Your task to perform on an android device: turn on the 12-hour format for clock Image 0: 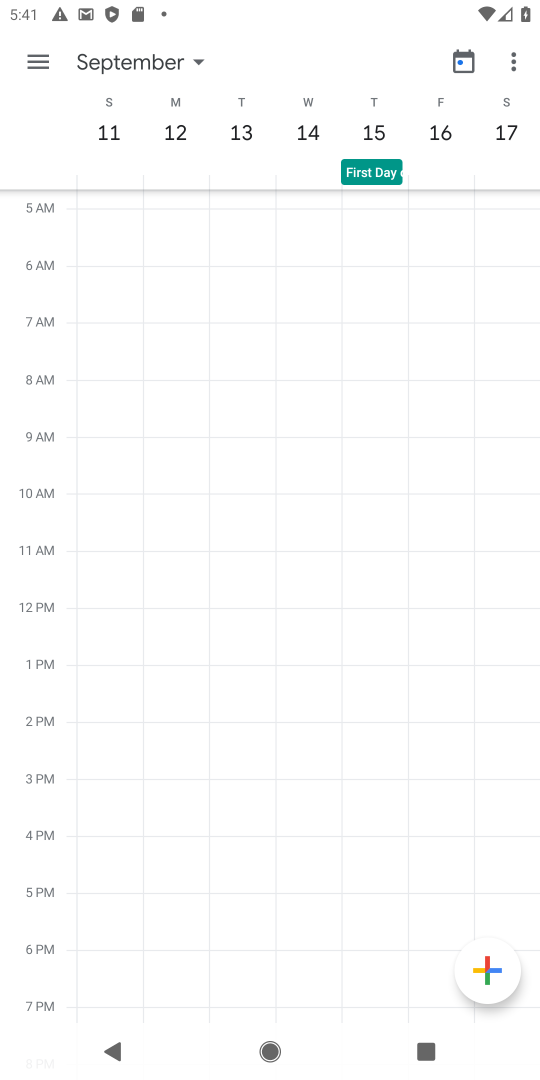
Step 0: press home button
Your task to perform on an android device: turn on the 12-hour format for clock Image 1: 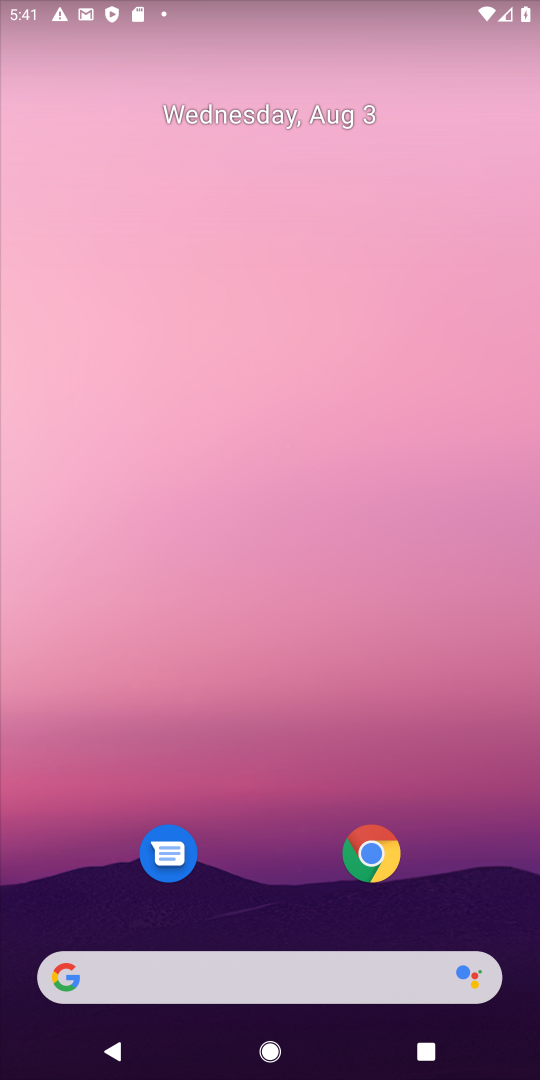
Step 1: drag from (483, 840) to (395, 80)
Your task to perform on an android device: turn on the 12-hour format for clock Image 2: 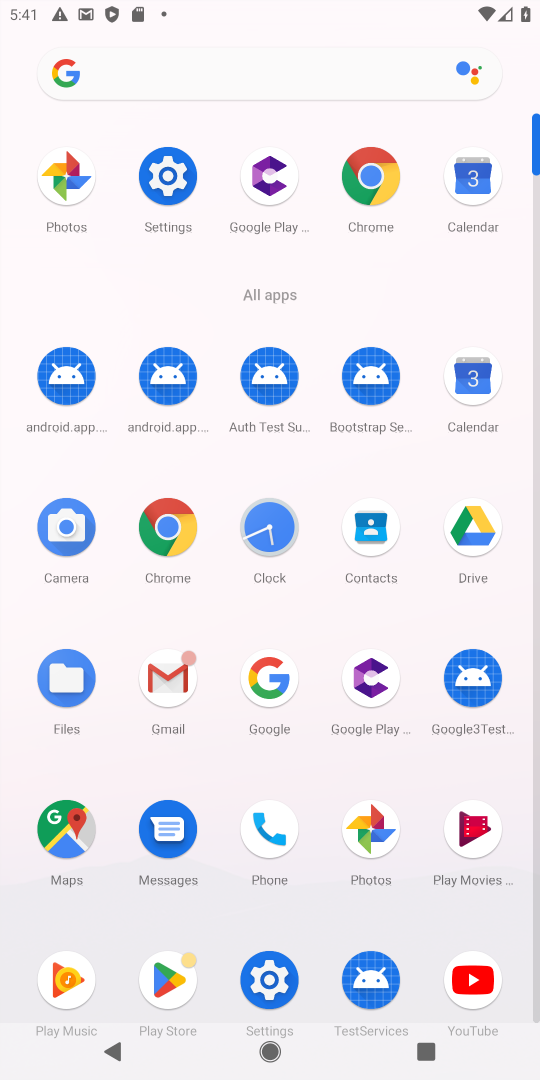
Step 2: click (280, 979)
Your task to perform on an android device: turn on the 12-hour format for clock Image 3: 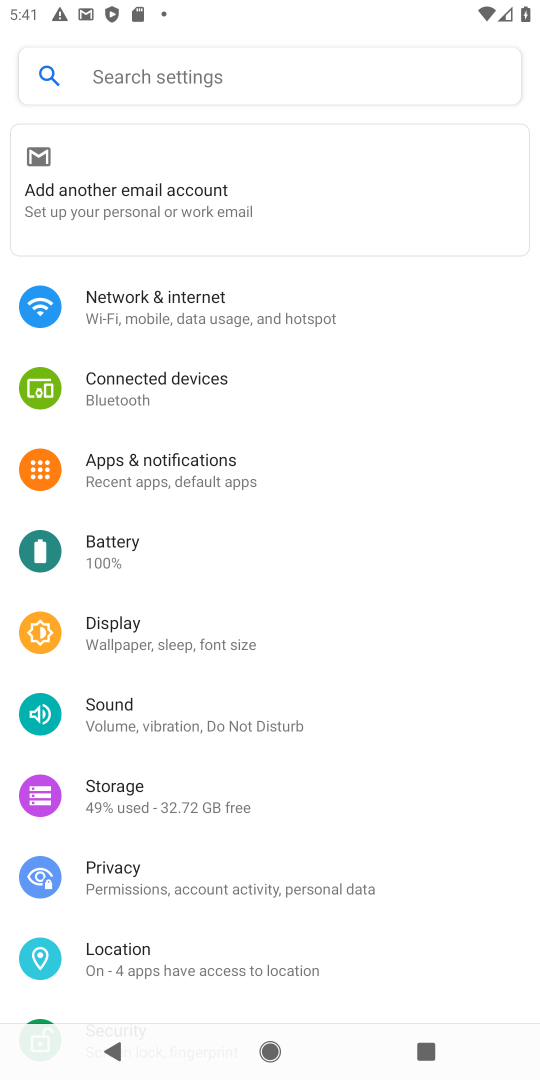
Step 3: drag from (338, 849) to (303, 245)
Your task to perform on an android device: turn on the 12-hour format for clock Image 4: 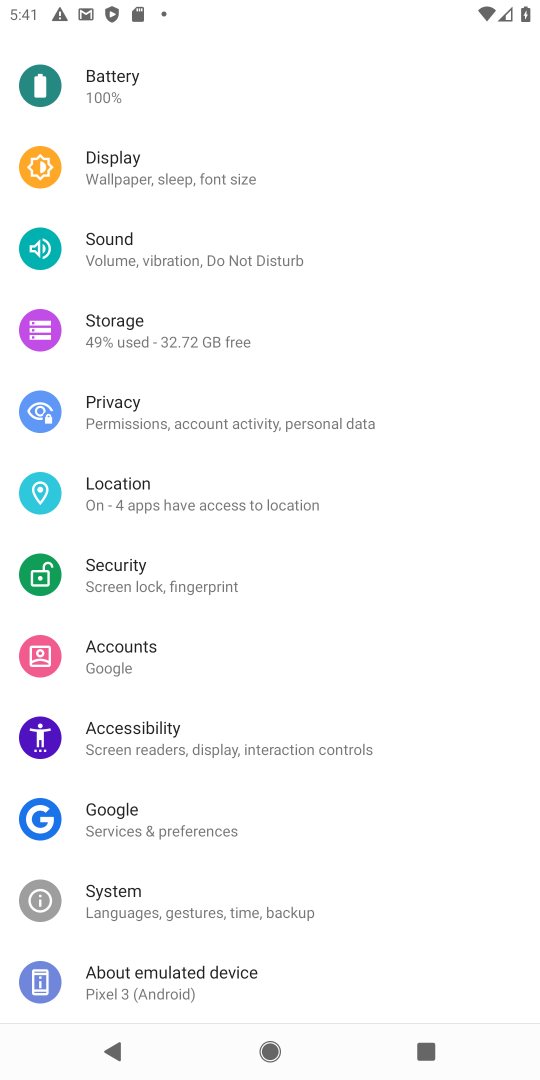
Step 4: click (178, 907)
Your task to perform on an android device: turn on the 12-hour format for clock Image 5: 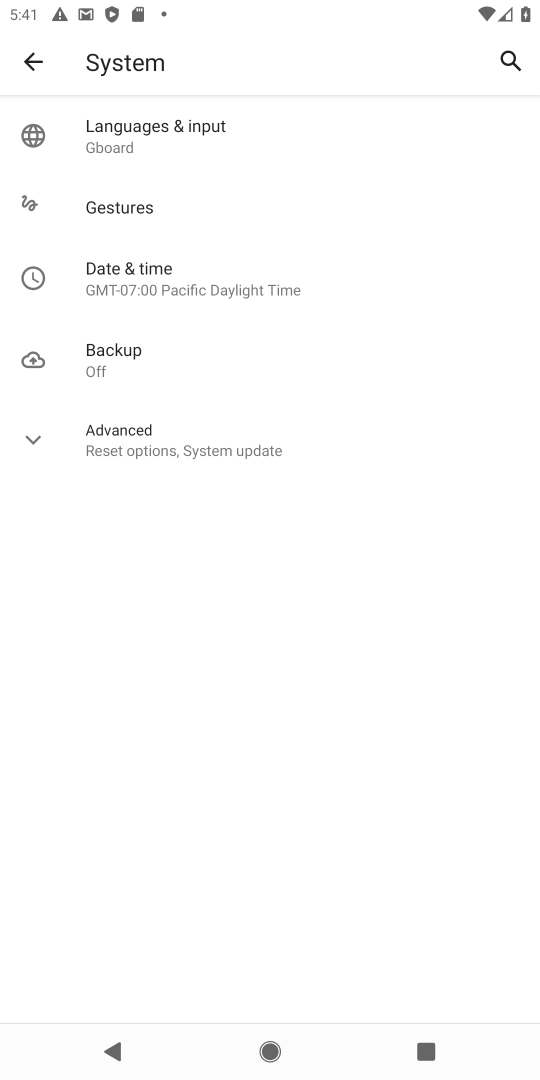
Step 5: click (91, 290)
Your task to perform on an android device: turn on the 12-hour format for clock Image 6: 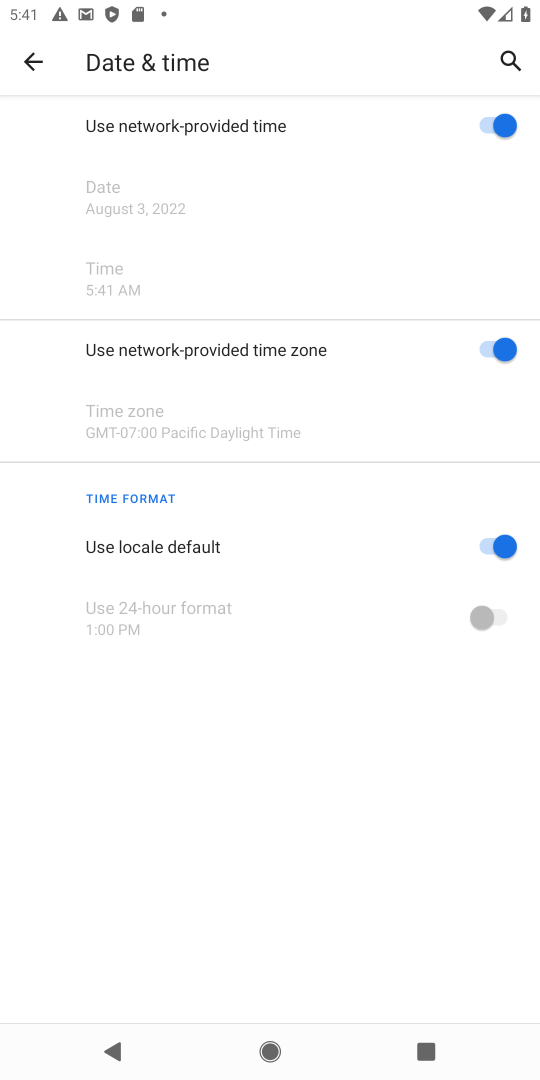
Step 6: task complete